Your task to perform on an android device: see sites visited before in the chrome app Image 0: 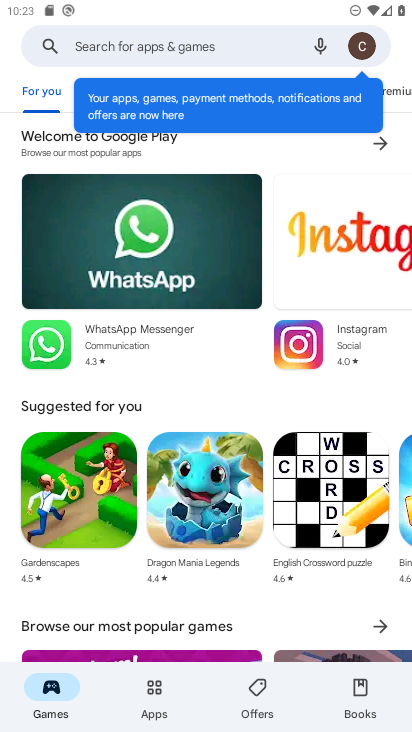
Step 0: press home button
Your task to perform on an android device: see sites visited before in the chrome app Image 1: 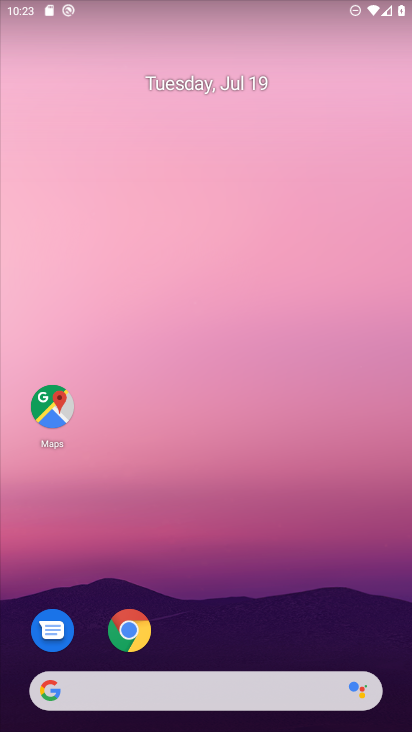
Step 1: click (133, 614)
Your task to perform on an android device: see sites visited before in the chrome app Image 2: 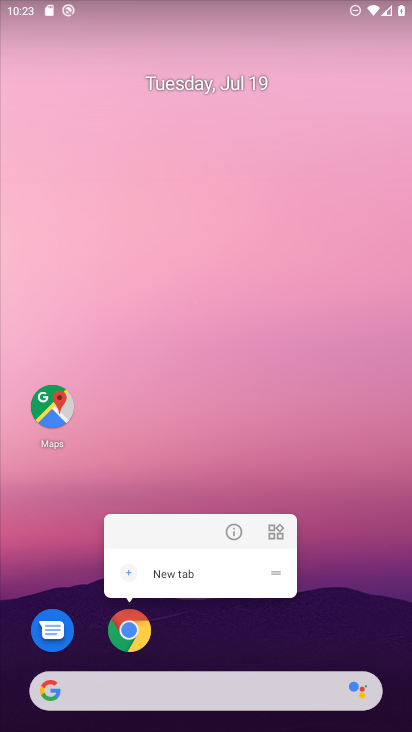
Step 2: click (125, 636)
Your task to perform on an android device: see sites visited before in the chrome app Image 3: 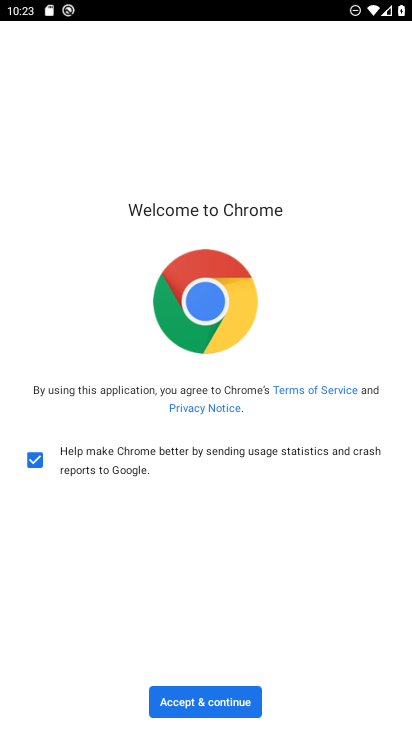
Step 3: click (205, 691)
Your task to perform on an android device: see sites visited before in the chrome app Image 4: 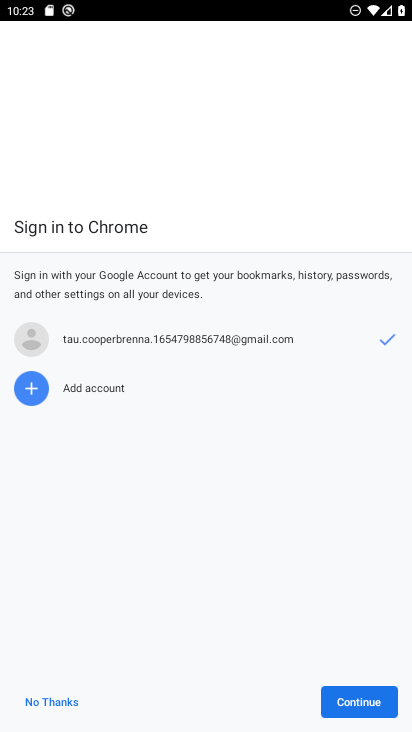
Step 4: click (341, 696)
Your task to perform on an android device: see sites visited before in the chrome app Image 5: 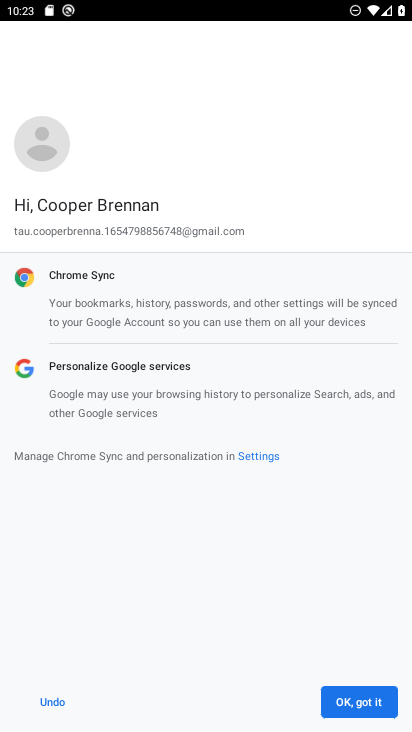
Step 5: click (351, 691)
Your task to perform on an android device: see sites visited before in the chrome app Image 6: 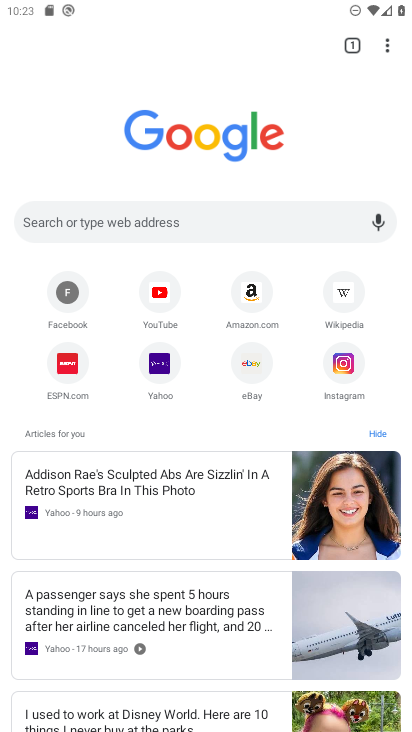
Step 6: click (388, 42)
Your task to perform on an android device: see sites visited before in the chrome app Image 7: 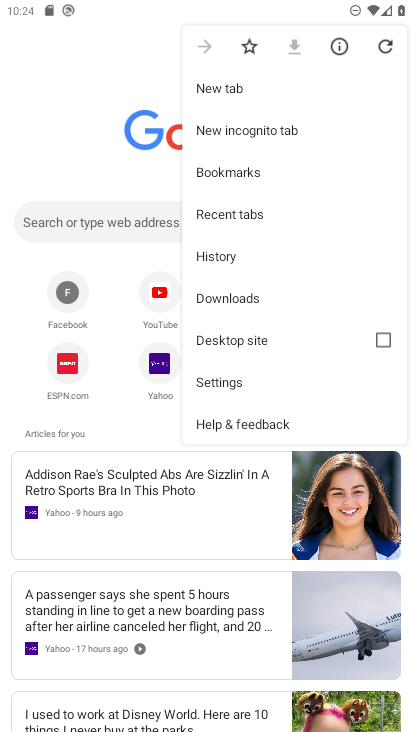
Step 7: click (242, 219)
Your task to perform on an android device: see sites visited before in the chrome app Image 8: 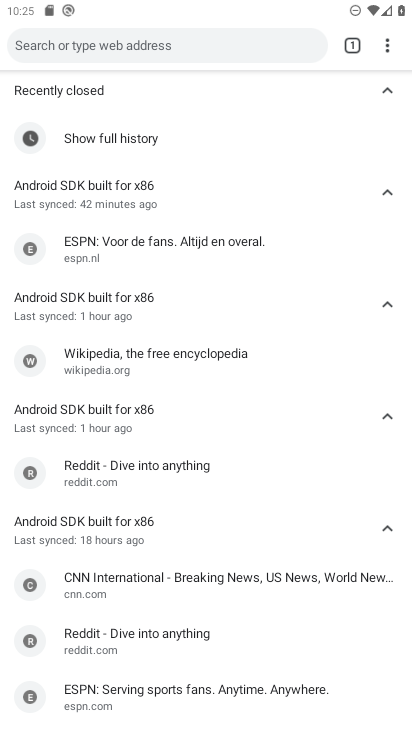
Step 8: task complete